Your task to perform on an android device: toggle data saver in the chrome app Image 0: 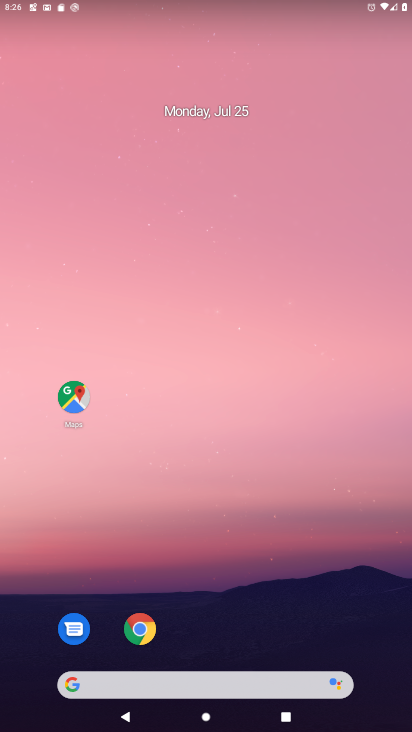
Step 0: click (139, 629)
Your task to perform on an android device: toggle data saver in the chrome app Image 1: 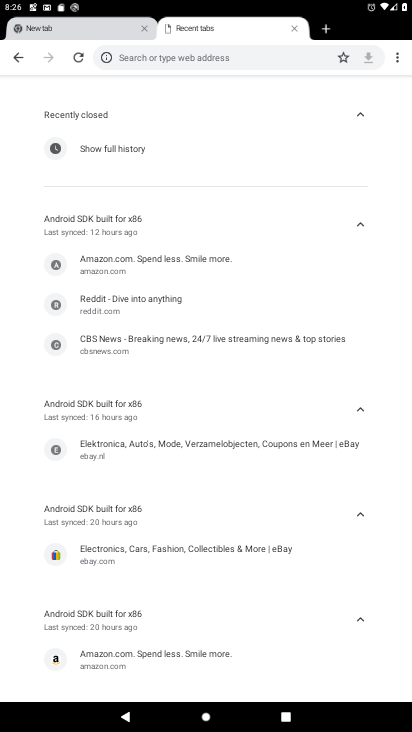
Step 1: click (396, 58)
Your task to perform on an android device: toggle data saver in the chrome app Image 2: 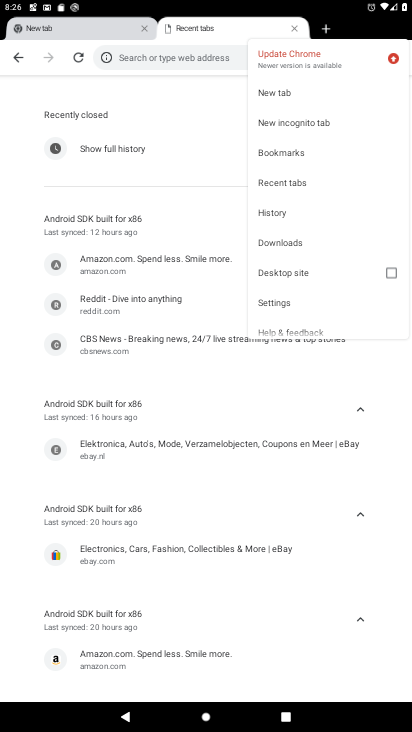
Step 2: click (280, 300)
Your task to perform on an android device: toggle data saver in the chrome app Image 3: 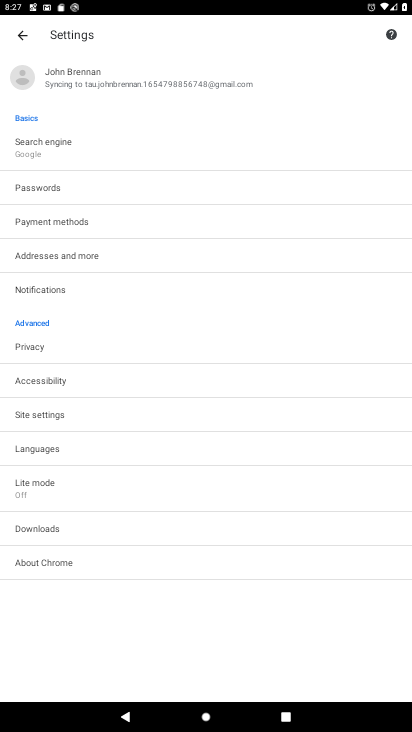
Step 3: click (41, 485)
Your task to perform on an android device: toggle data saver in the chrome app Image 4: 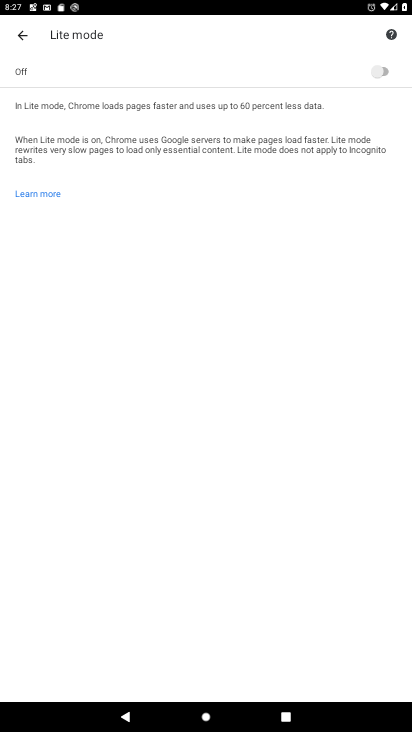
Step 4: click (377, 71)
Your task to perform on an android device: toggle data saver in the chrome app Image 5: 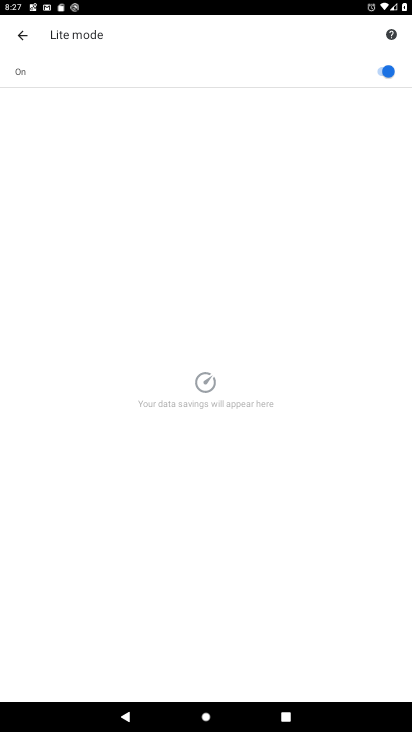
Step 5: task complete